Your task to perform on an android device: turn off javascript in the chrome app Image 0: 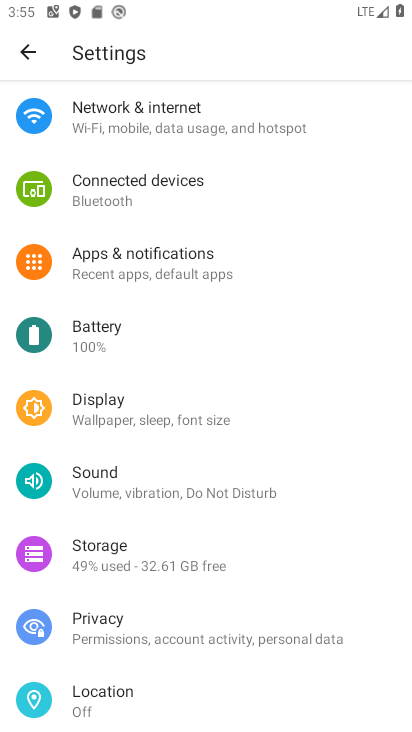
Step 0: press home button
Your task to perform on an android device: turn off javascript in the chrome app Image 1: 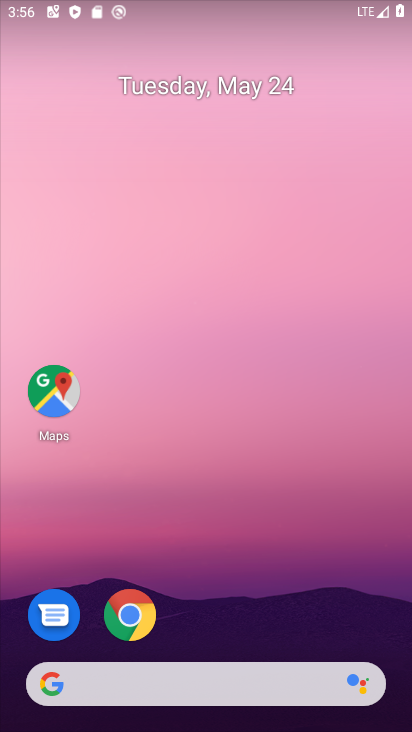
Step 1: click (129, 627)
Your task to perform on an android device: turn off javascript in the chrome app Image 2: 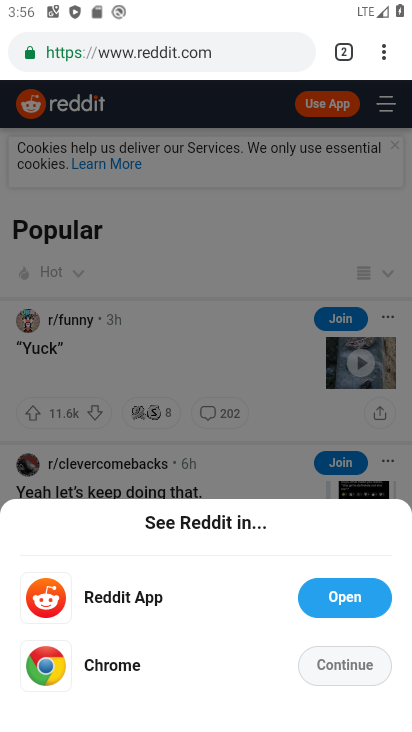
Step 2: click (385, 55)
Your task to perform on an android device: turn off javascript in the chrome app Image 3: 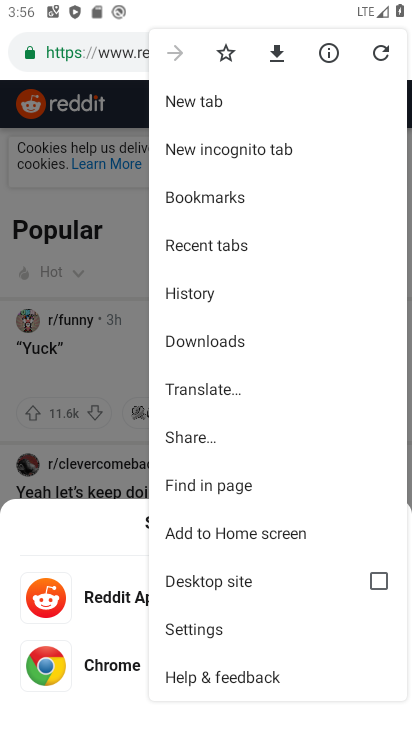
Step 3: click (192, 629)
Your task to perform on an android device: turn off javascript in the chrome app Image 4: 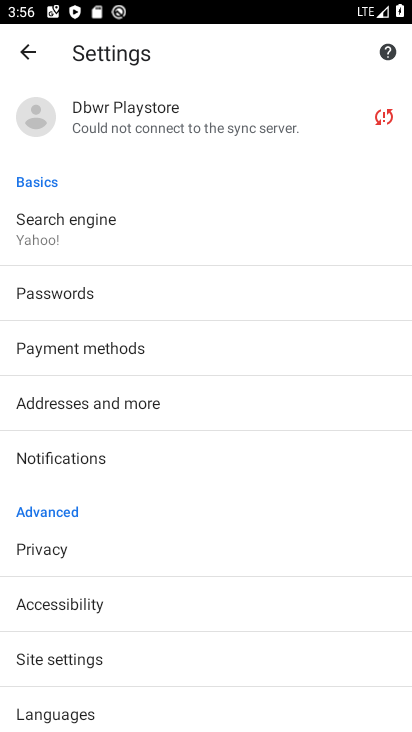
Step 4: click (80, 661)
Your task to perform on an android device: turn off javascript in the chrome app Image 5: 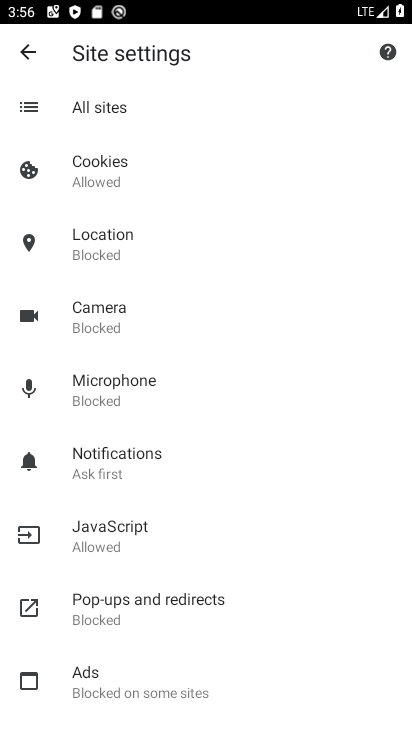
Step 5: click (103, 530)
Your task to perform on an android device: turn off javascript in the chrome app Image 6: 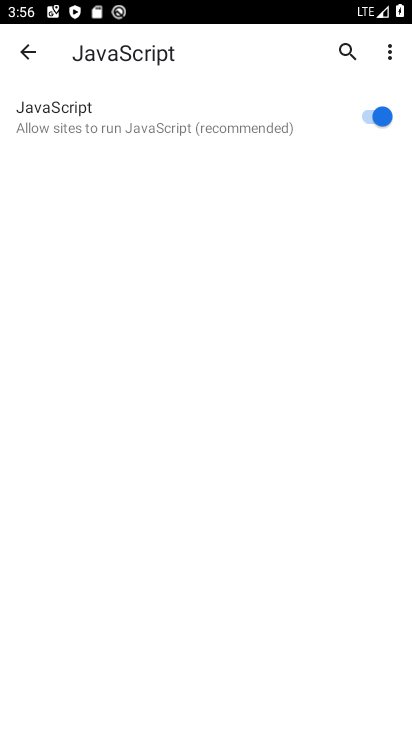
Step 6: click (368, 112)
Your task to perform on an android device: turn off javascript in the chrome app Image 7: 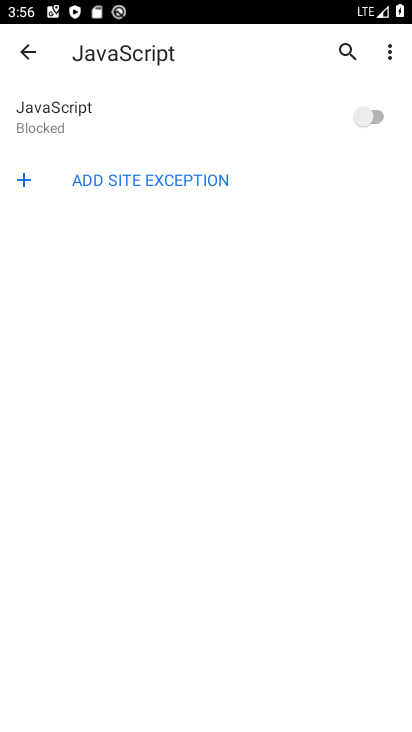
Step 7: task complete